Your task to perform on an android device: toggle sleep mode Image 0: 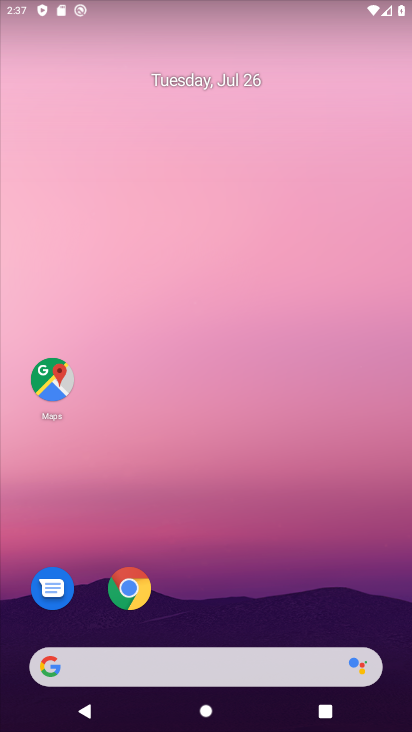
Step 0: drag from (252, 591) to (228, 101)
Your task to perform on an android device: toggle sleep mode Image 1: 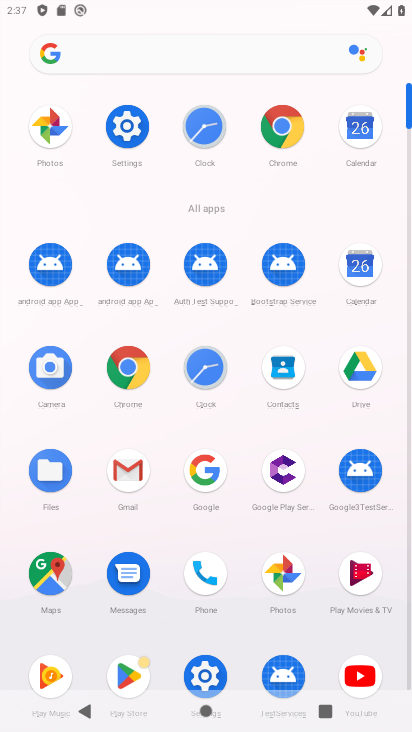
Step 1: click (133, 124)
Your task to perform on an android device: toggle sleep mode Image 2: 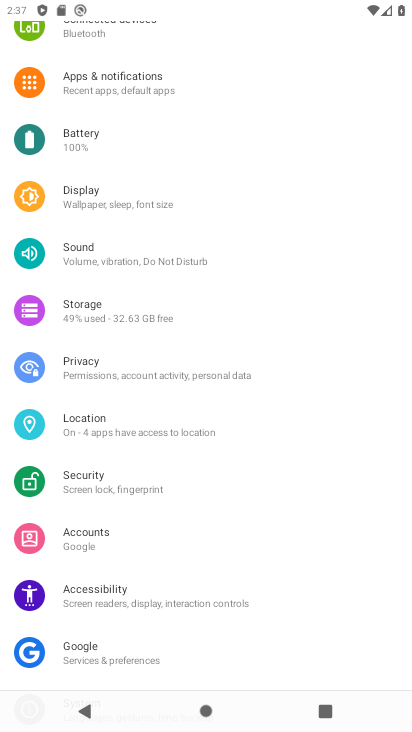
Step 2: click (93, 192)
Your task to perform on an android device: toggle sleep mode Image 3: 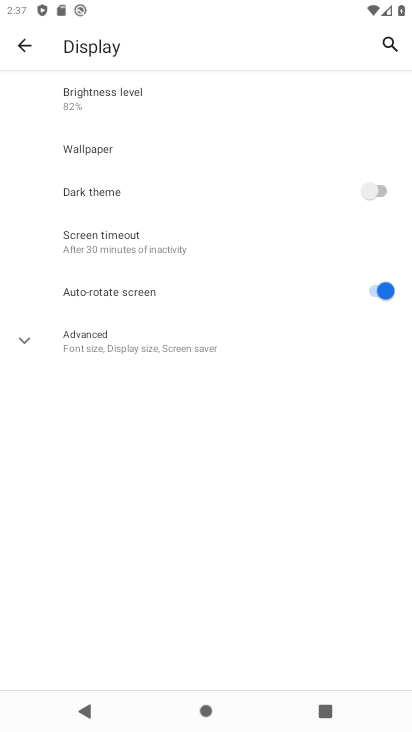
Step 3: click (113, 251)
Your task to perform on an android device: toggle sleep mode Image 4: 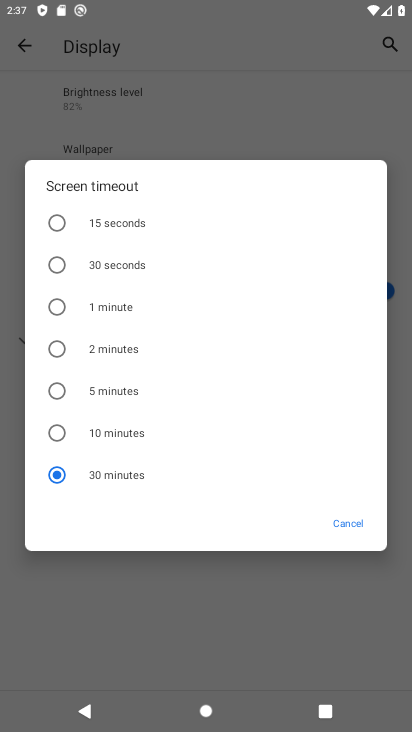
Step 4: click (119, 354)
Your task to perform on an android device: toggle sleep mode Image 5: 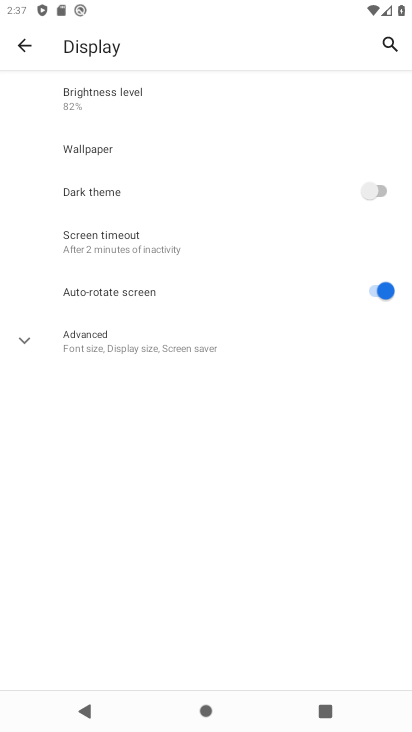
Step 5: task complete